Your task to perform on an android device: toggle priority inbox in the gmail app Image 0: 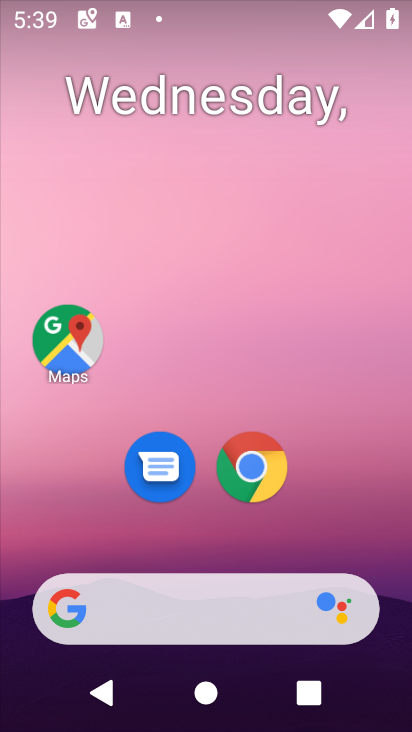
Step 0: click (269, 474)
Your task to perform on an android device: toggle priority inbox in the gmail app Image 1: 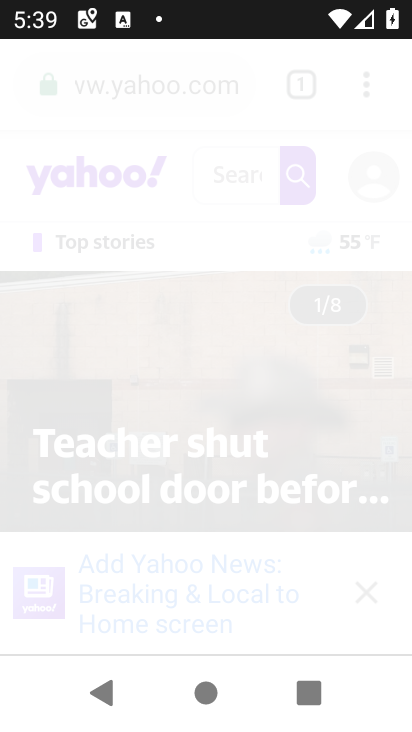
Step 1: press home button
Your task to perform on an android device: toggle priority inbox in the gmail app Image 2: 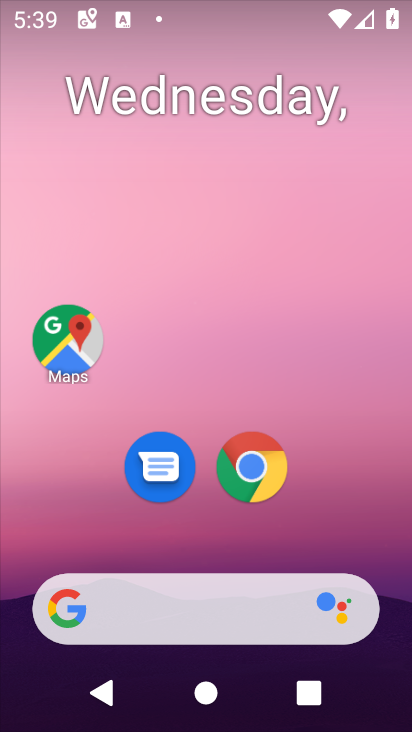
Step 2: drag from (336, 515) to (263, 0)
Your task to perform on an android device: toggle priority inbox in the gmail app Image 3: 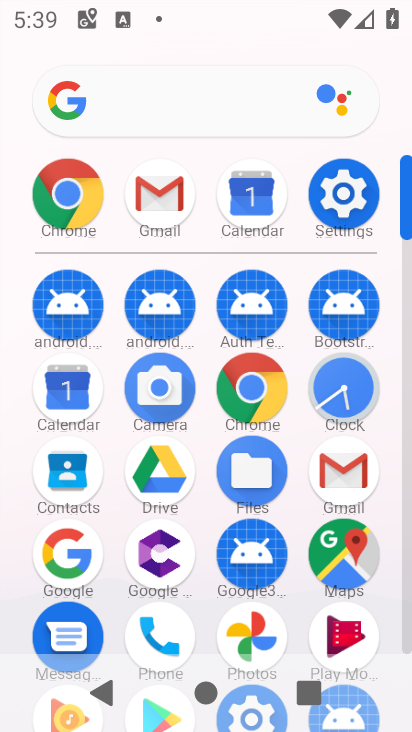
Step 3: click (351, 183)
Your task to perform on an android device: toggle priority inbox in the gmail app Image 4: 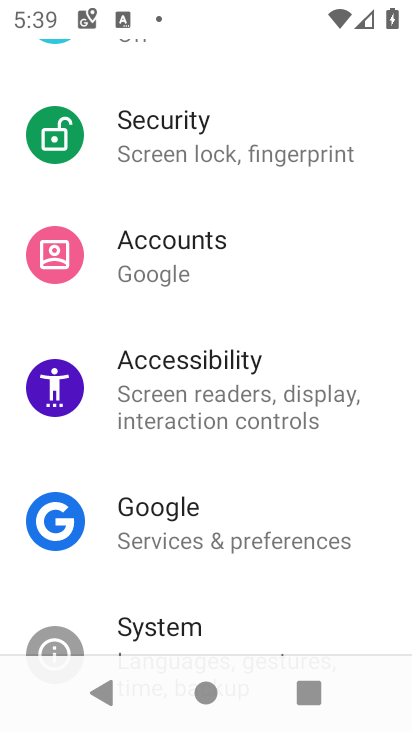
Step 4: press home button
Your task to perform on an android device: toggle priority inbox in the gmail app Image 5: 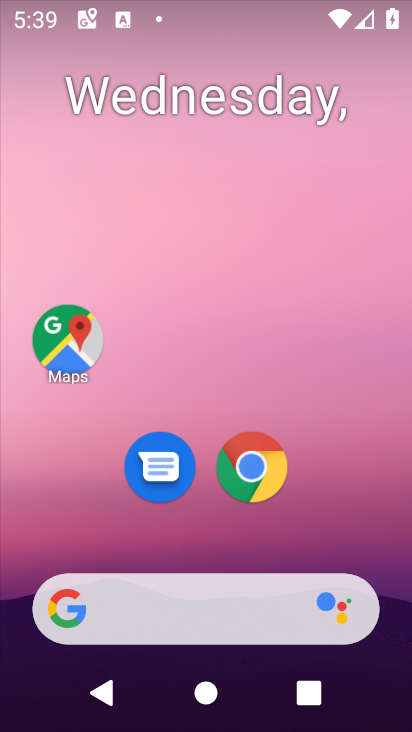
Step 5: drag from (317, 546) to (257, 27)
Your task to perform on an android device: toggle priority inbox in the gmail app Image 6: 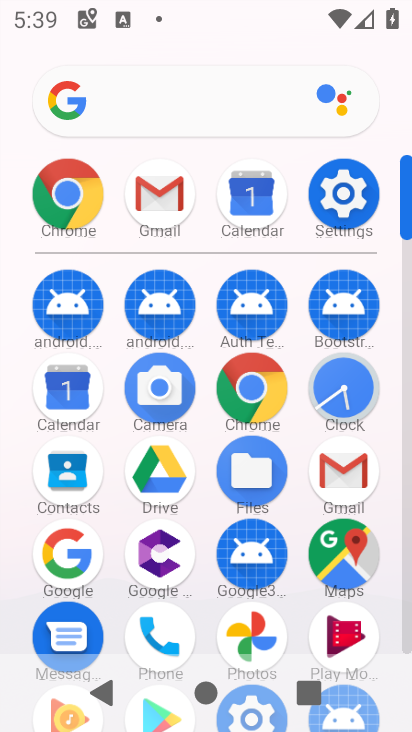
Step 6: click (332, 453)
Your task to perform on an android device: toggle priority inbox in the gmail app Image 7: 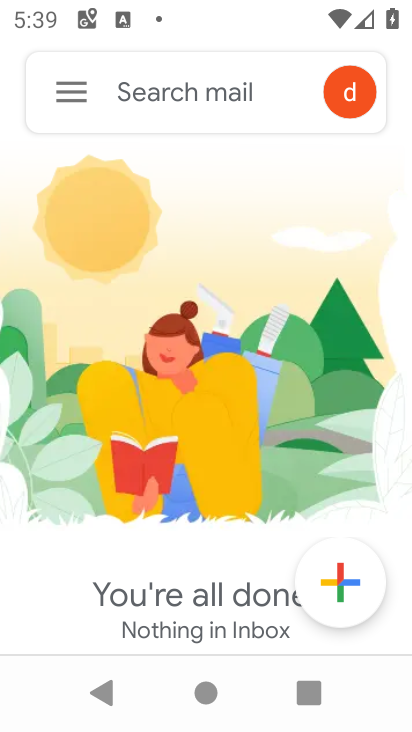
Step 7: click (84, 106)
Your task to perform on an android device: toggle priority inbox in the gmail app Image 8: 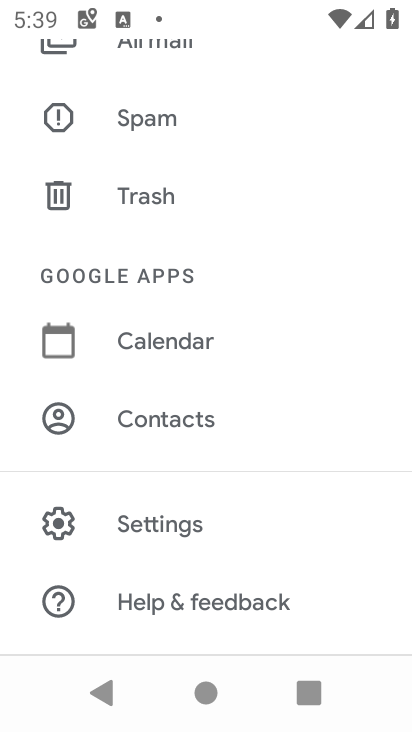
Step 8: drag from (251, 458) to (225, 116)
Your task to perform on an android device: toggle priority inbox in the gmail app Image 9: 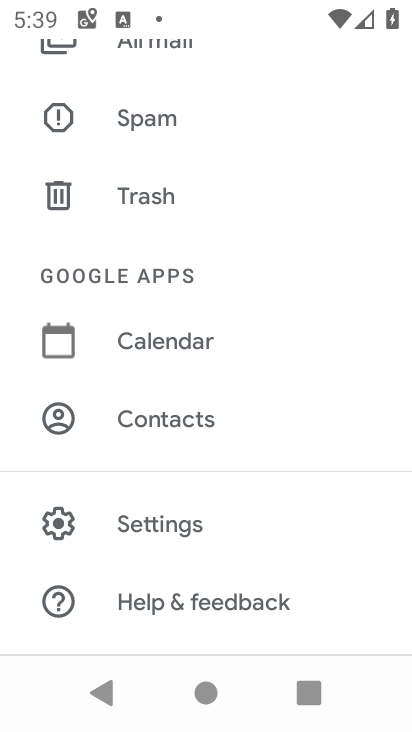
Step 9: click (182, 517)
Your task to perform on an android device: toggle priority inbox in the gmail app Image 10: 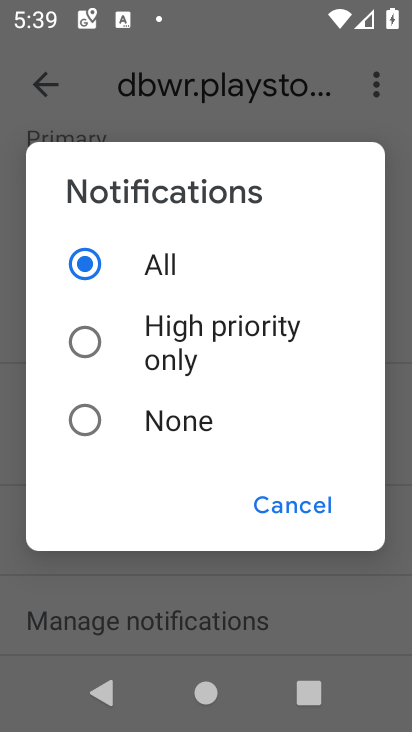
Step 10: click (277, 502)
Your task to perform on an android device: toggle priority inbox in the gmail app Image 11: 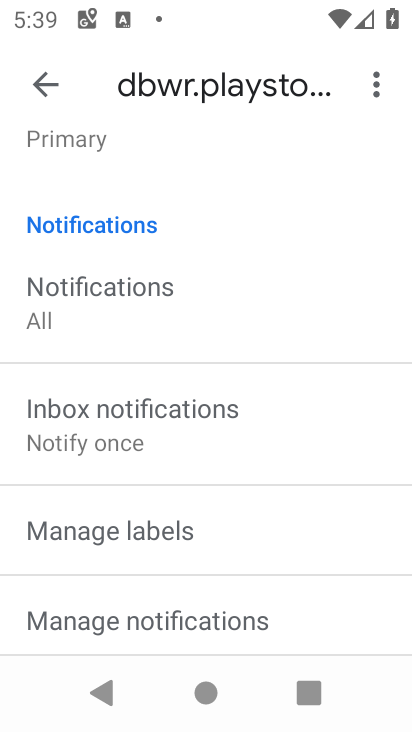
Step 11: drag from (157, 245) to (187, 606)
Your task to perform on an android device: toggle priority inbox in the gmail app Image 12: 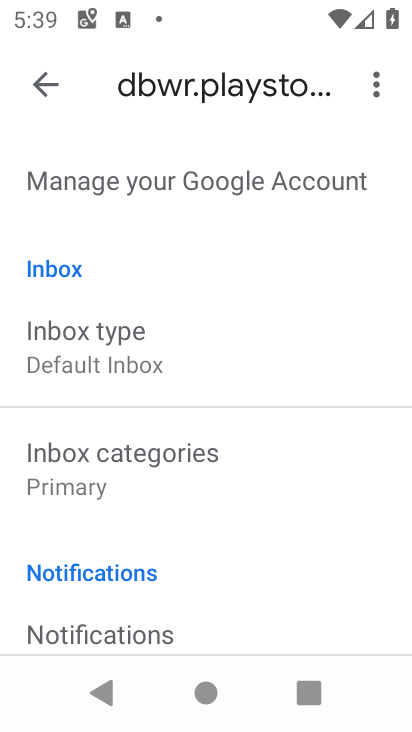
Step 12: click (180, 346)
Your task to perform on an android device: toggle priority inbox in the gmail app Image 13: 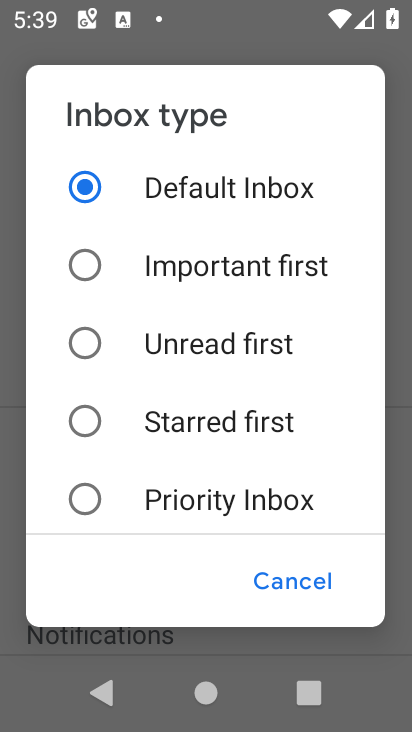
Step 13: click (193, 491)
Your task to perform on an android device: toggle priority inbox in the gmail app Image 14: 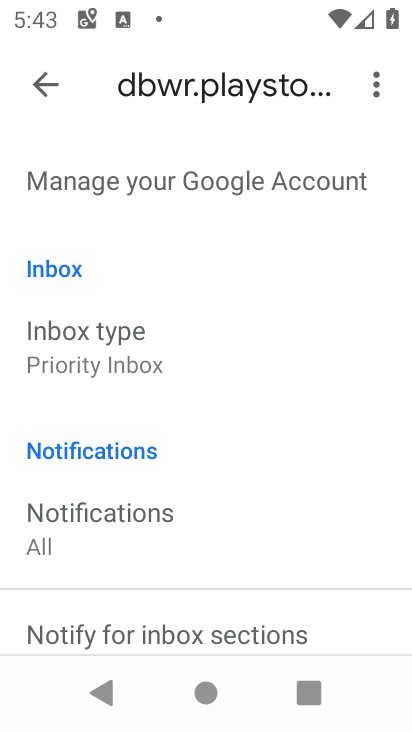
Step 14: task complete